Your task to perform on an android device: What is the news today? Image 0: 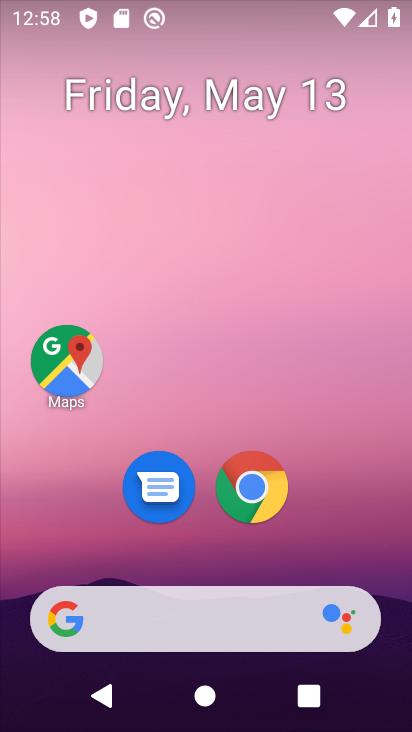
Step 0: drag from (337, 507) to (310, 111)
Your task to perform on an android device: What is the news today? Image 1: 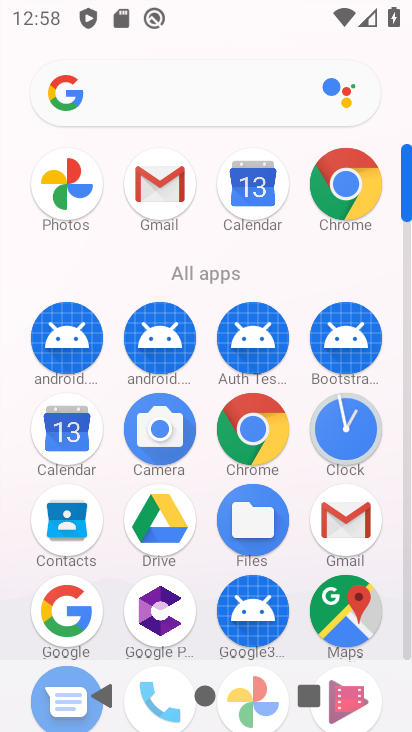
Step 1: click (336, 193)
Your task to perform on an android device: What is the news today? Image 2: 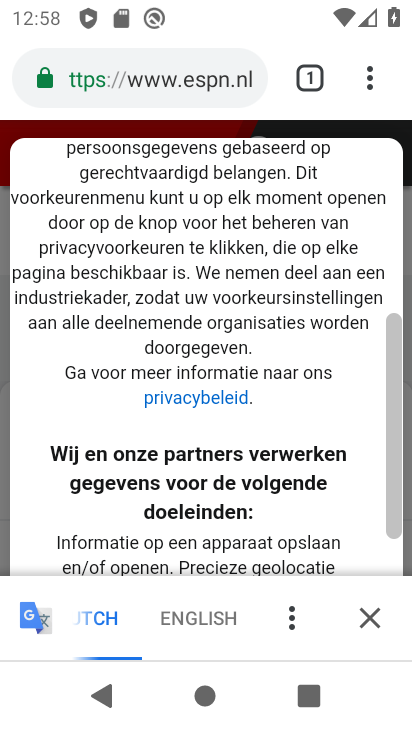
Step 2: click (197, 81)
Your task to perform on an android device: What is the news today? Image 3: 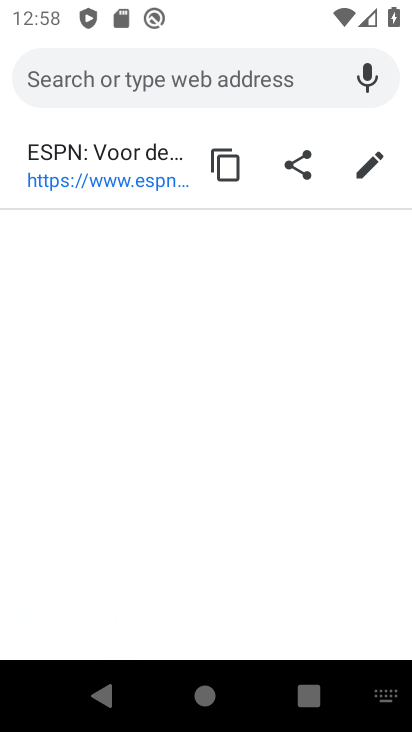
Step 3: type "what is the news today"
Your task to perform on an android device: What is the news today? Image 4: 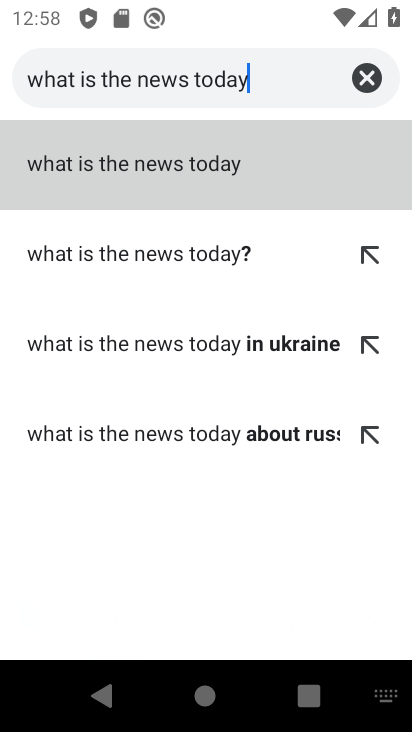
Step 4: click (202, 162)
Your task to perform on an android device: What is the news today? Image 5: 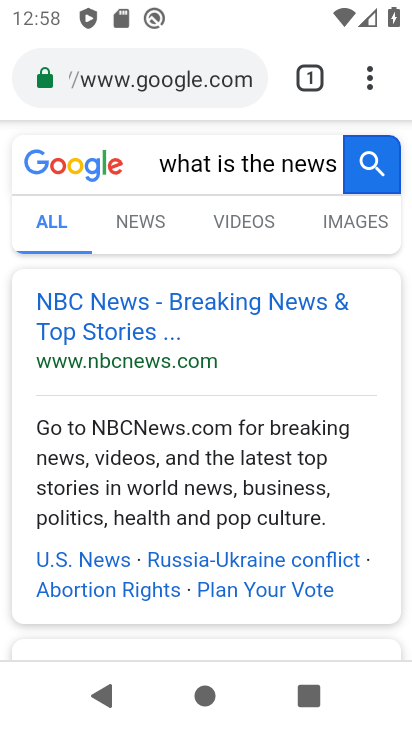
Step 5: click (340, 291)
Your task to perform on an android device: What is the news today? Image 6: 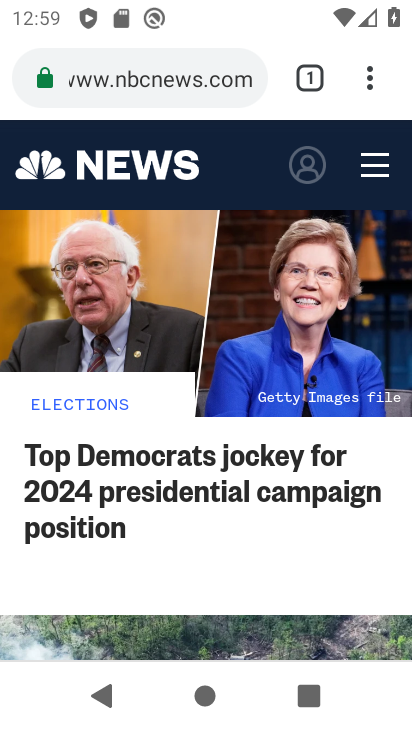
Step 6: task complete